Your task to perform on an android device: turn off picture-in-picture Image 0: 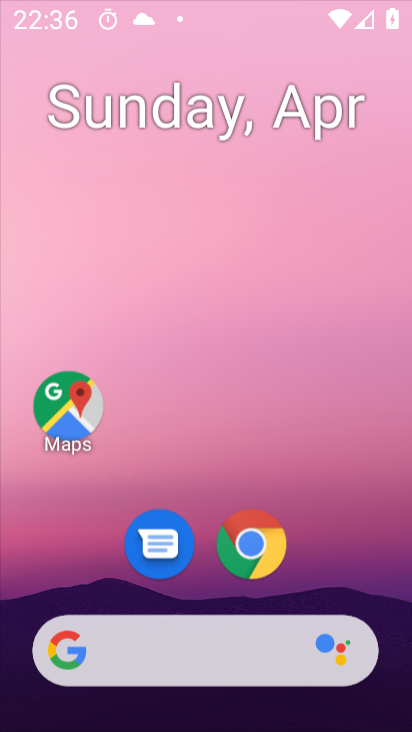
Step 0: click (353, 198)
Your task to perform on an android device: turn off picture-in-picture Image 1: 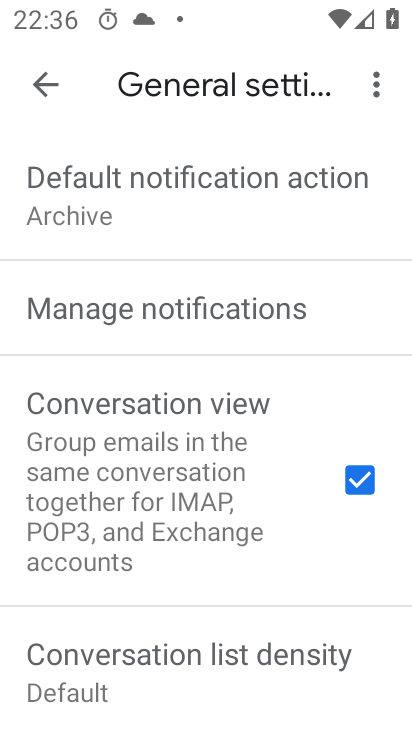
Step 1: press home button
Your task to perform on an android device: turn off picture-in-picture Image 2: 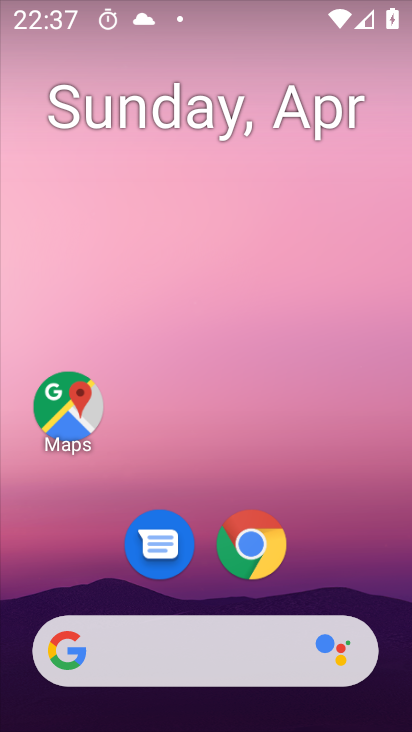
Step 2: drag from (335, 584) to (356, 237)
Your task to perform on an android device: turn off picture-in-picture Image 3: 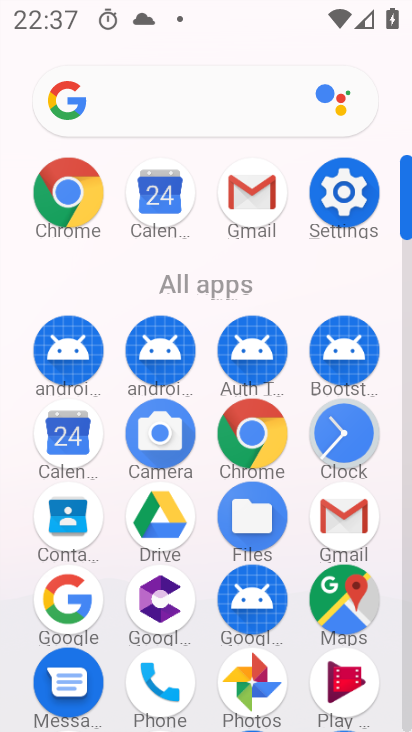
Step 3: click (344, 193)
Your task to perform on an android device: turn off picture-in-picture Image 4: 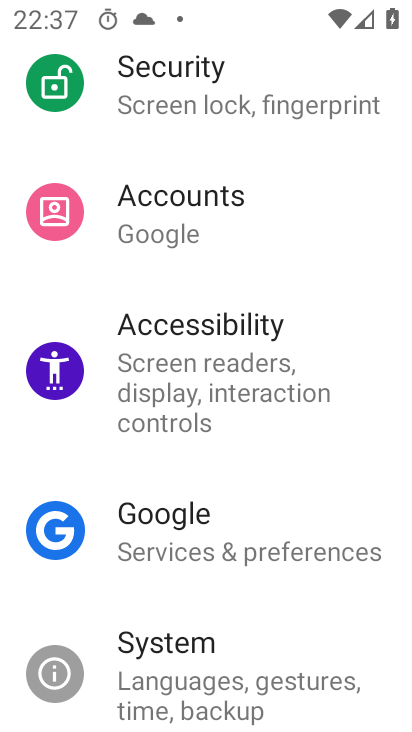
Step 4: drag from (248, 614) to (233, 667)
Your task to perform on an android device: turn off picture-in-picture Image 5: 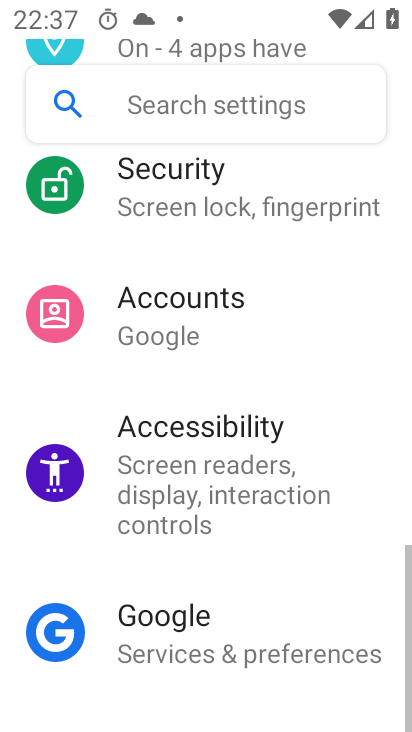
Step 5: drag from (244, 197) to (224, 664)
Your task to perform on an android device: turn off picture-in-picture Image 6: 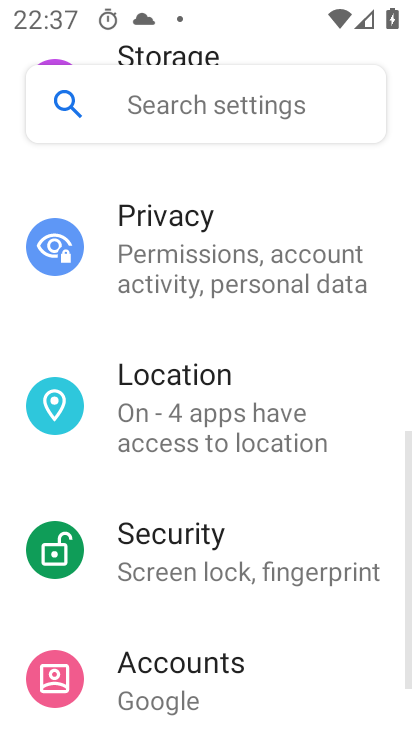
Step 6: drag from (227, 218) to (237, 669)
Your task to perform on an android device: turn off picture-in-picture Image 7: 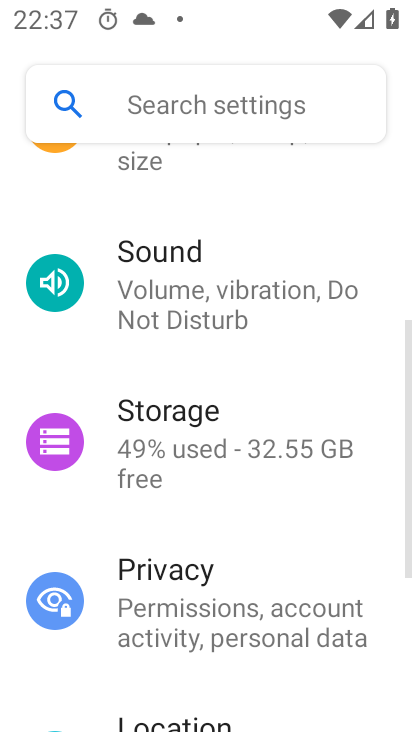
Step 7: drag from (229, 173) to (236, 619)
Your task to perform on an android device: turn off picture-in-picture Image 8: 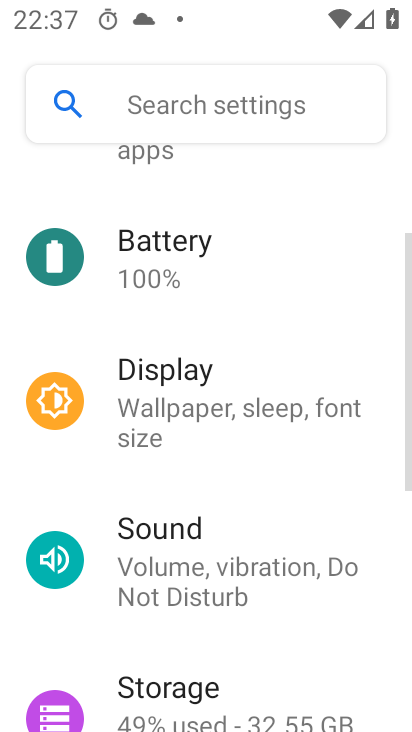
Step 8: drag from (259, 204) to (218, 660)
Your task to perform on an android device: turn off picture-in-picture Image 9: 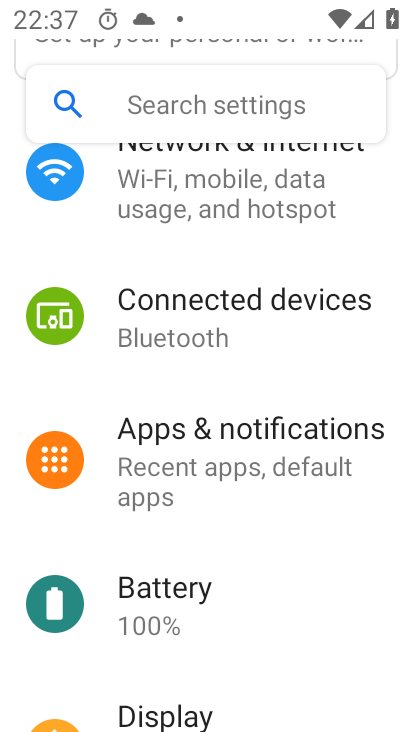
Step 9: click (230, 436)
Your task to perform on an android device: turn off picture-in-picture Image 10: 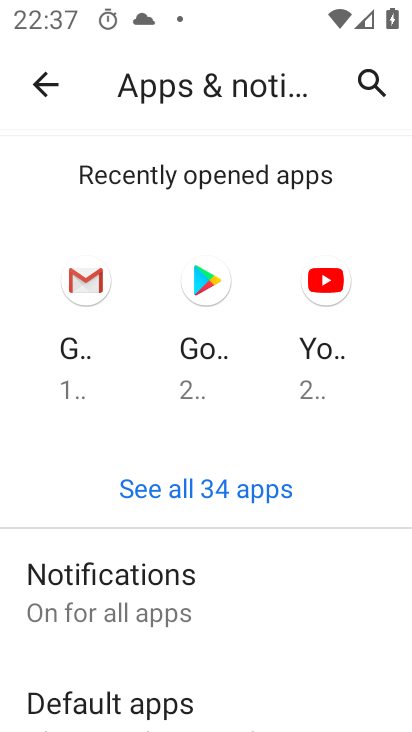
Step 10: drag from (194, 638) to (243, 145)
Your task to perform on an android device: turn off picture-in-picture Image 11: 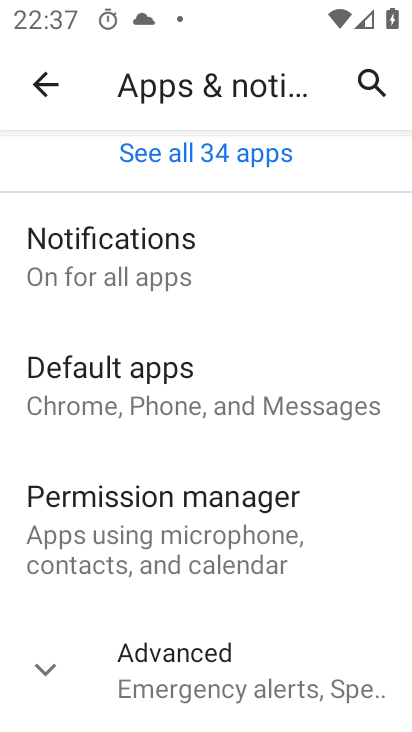
Step 11: click (219, 678)
Your task to perform on an android device: turn off picture-in-picture Image 12: 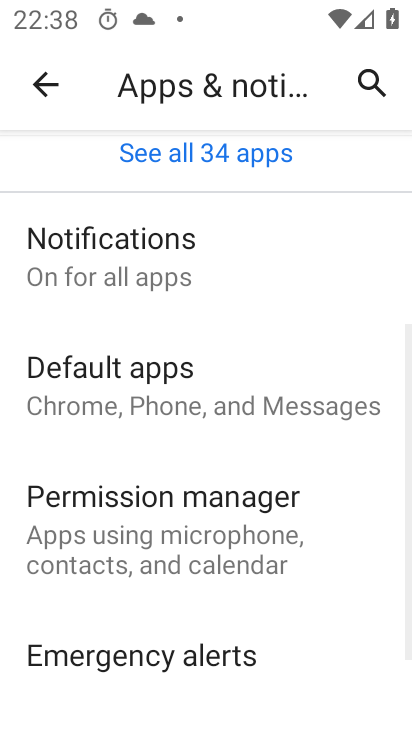
Step 12: drag from (239, 606) to (256, 265)
Your task to perform on an android device: turn off picture-in-picture Image 13: 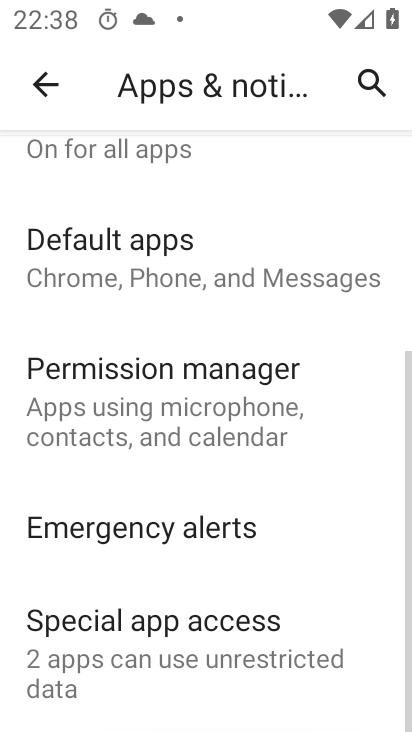
Step 13: click (154, 644)
Your task to perform on an android device: turn off picture-in-picture Image 14: 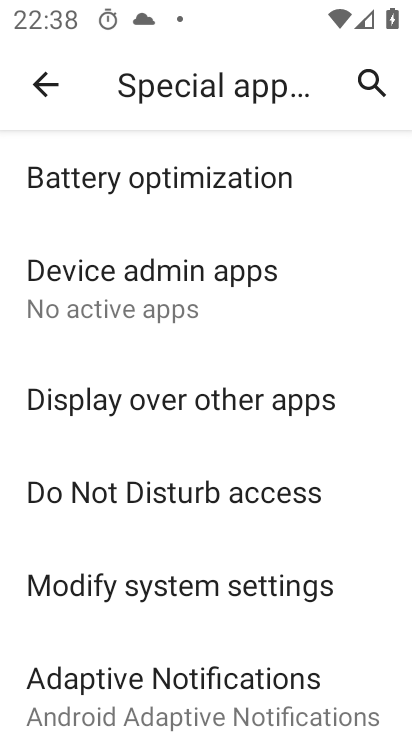
Step 14: drag from (261, 642) to (268, 246)
Your task to perform on an android device: turn off picture-in-picture Image 15: 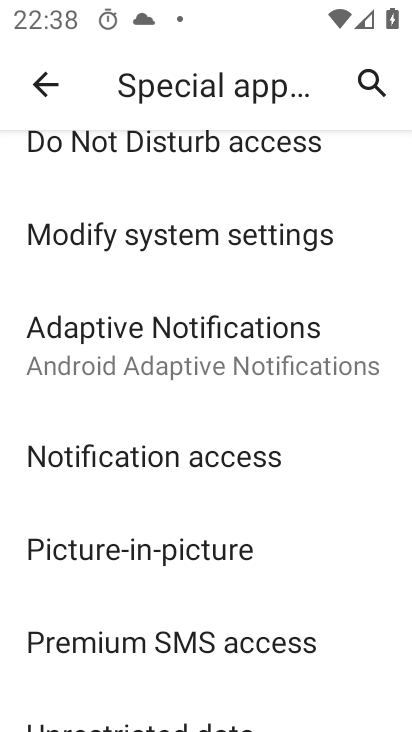
Step 15: click (151, 563)
Your task to perform on an android device: turn off picture-in-picture Image 16: 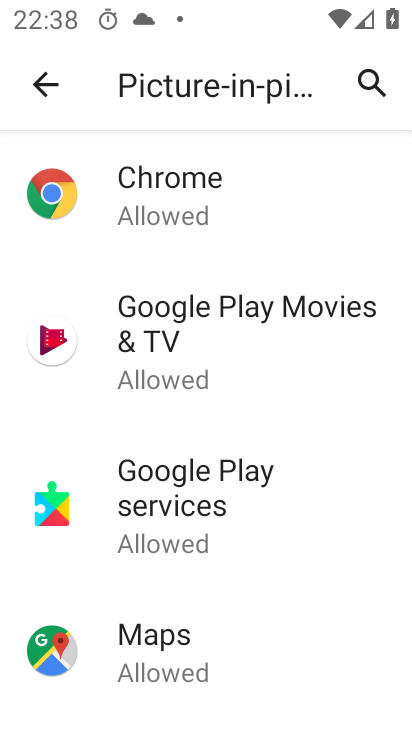
Step 16: drag from (228, 628) to (280, 187)
Your task to perform on an android device: turn off picture-in-picture Image 17: 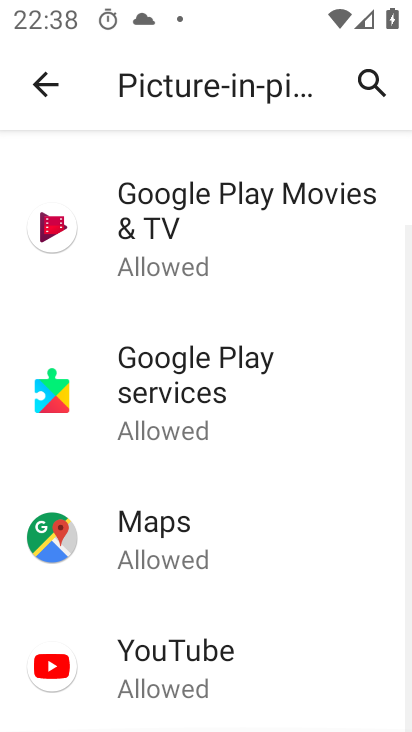
Step 17: click (190, 661)
Your task to perform on an android device: turn off picture-in-picture Image 18: 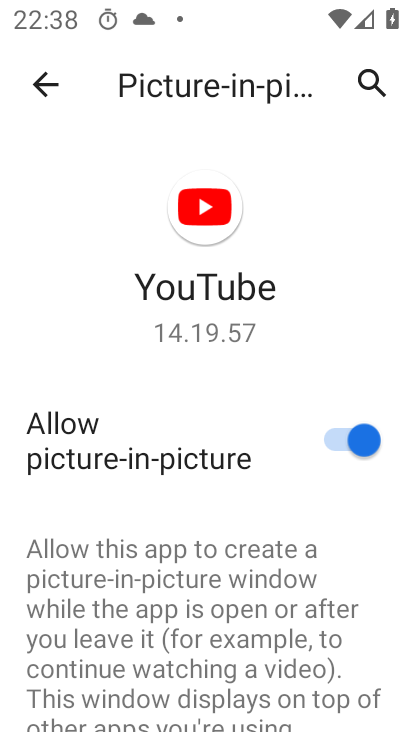
Step 18: click (340, 430)
Your task to perform on an android device: turn off picture-in-picture Image 19: 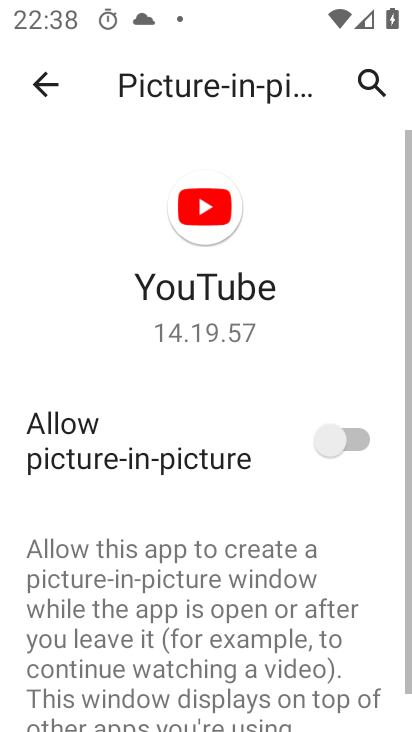
Step 19: task complete